Your task to perform on an android device: Go to calendar. Show me events next week Image 0: 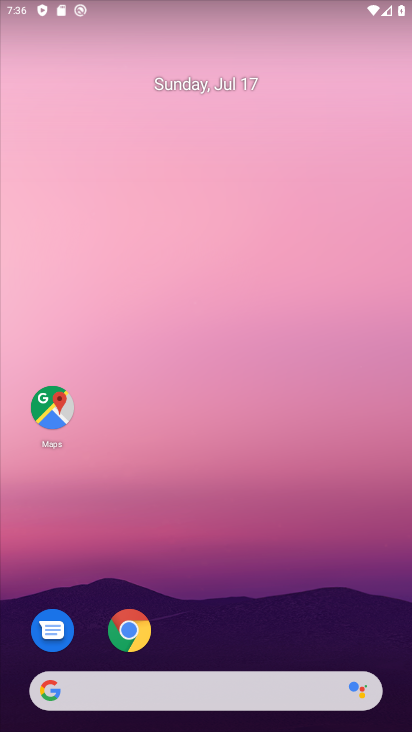
Step 0: drag from (212, 710) to (179, 9)
Your task to perform on an android device: Go to calendar. Show me events next week Image 1: 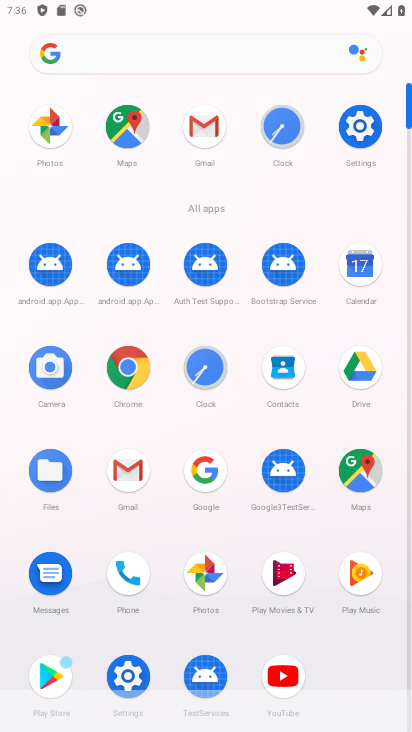
Step 1: click (363, 259)
Your task to perform on an android device: Go to calendar. Show me events next week Image 2: 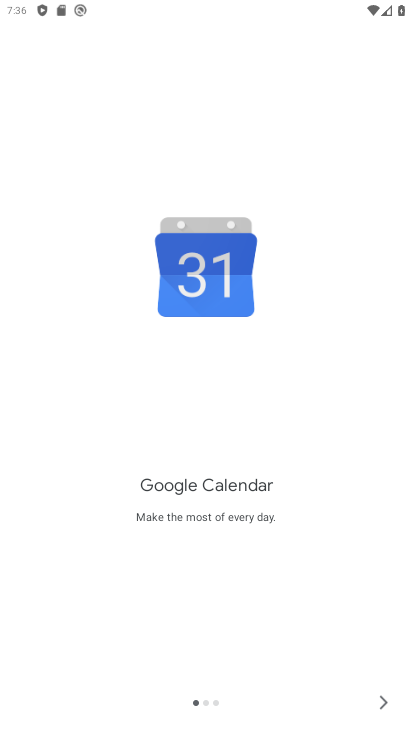
Step 2: click (383, 697)
Your task to perform on an android device: Go to calendar. Show me events next week Image 3: 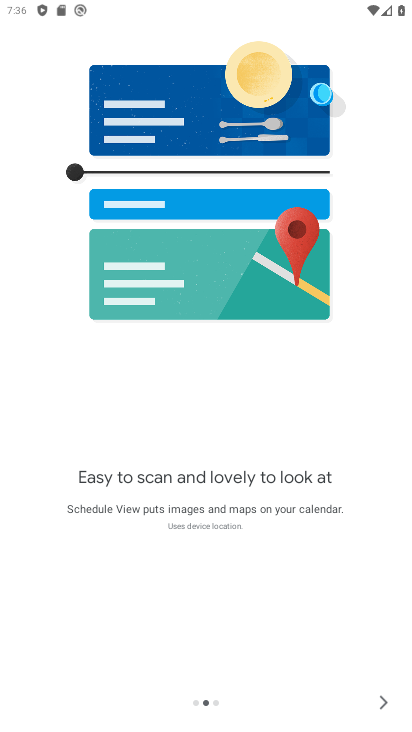
Step 3: click (383, 697)
Your task to perform on an android device: Go to calendar. Show me events next week Image 4: 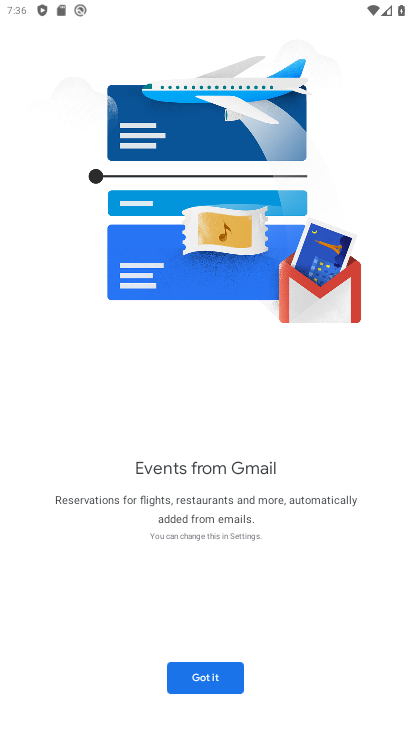
Step 4: click (198, 675)
Your task to perform on an android device: Go to calendar. Show me events next week Image 5: 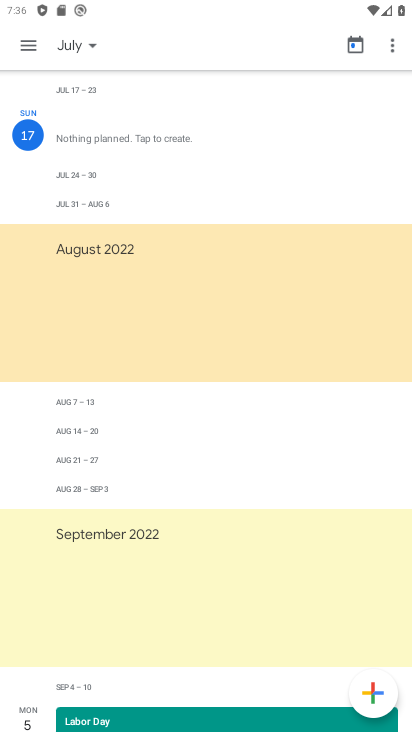
Step 5: click (68, 45)
Your task to perform on an android device: Go to calendar. Show me events next week Image 6: 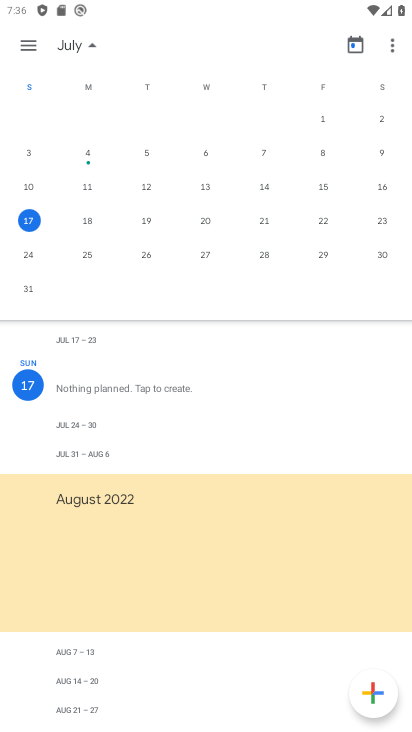
Step 6: click (25, 256)
Your task to perform on an android device: Go to calendar. Show me events next week Image 7: 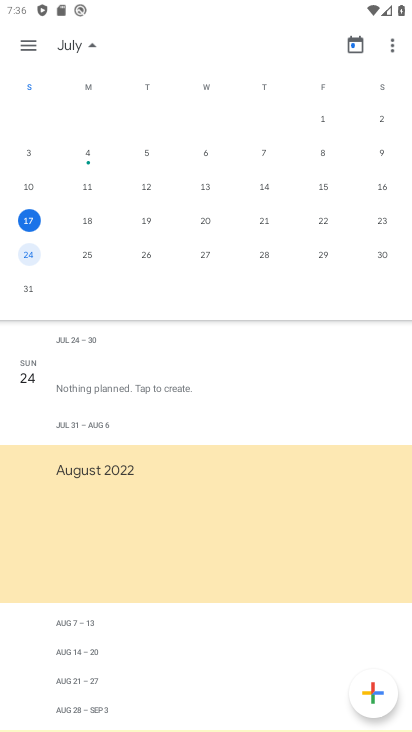
Step 7: task complete